Your task to perform on an android device: Search for seafood restaurants on Google Maps Image 0: 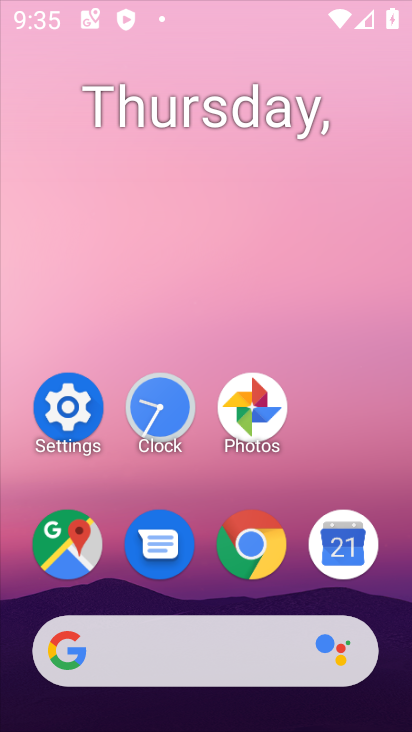
Step 0: click (61, 403)
Your task to perform on an android device: Search for seafood restaurants on Google Maps Image 1: 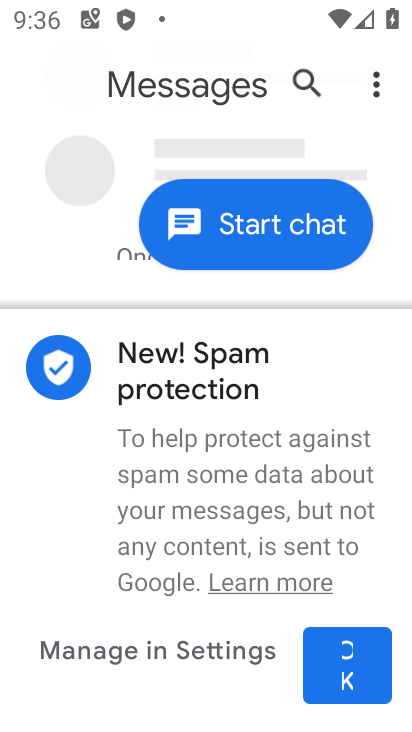
Step 1: press home button
Your task to perform on an android device: Search for seafood restaurants on Google Maps Image 2: 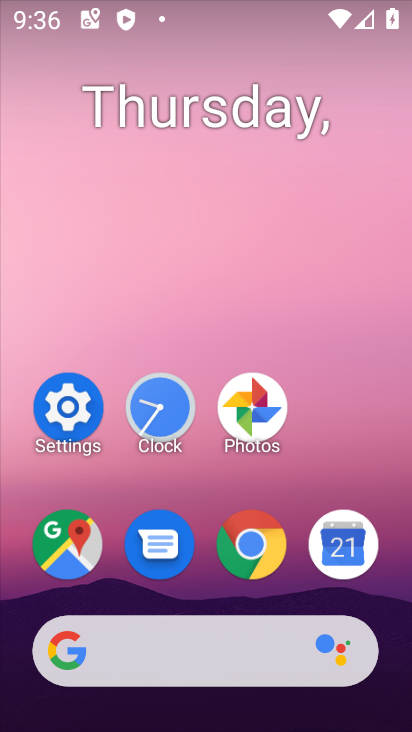
Step 2: click (60, 543)
Your task to perform on an android device: Search for seafood restaurants on Google Maps Image 3: 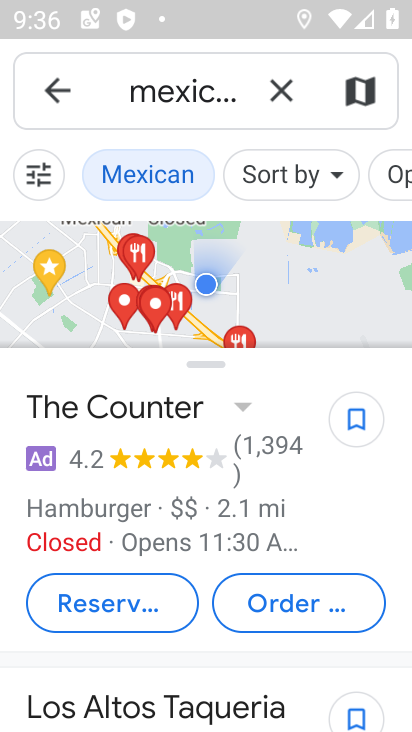
Step 3: click (281, 95)
Your task to perform on an android device: Search for seafood restaurants on Google Maps Image 4: 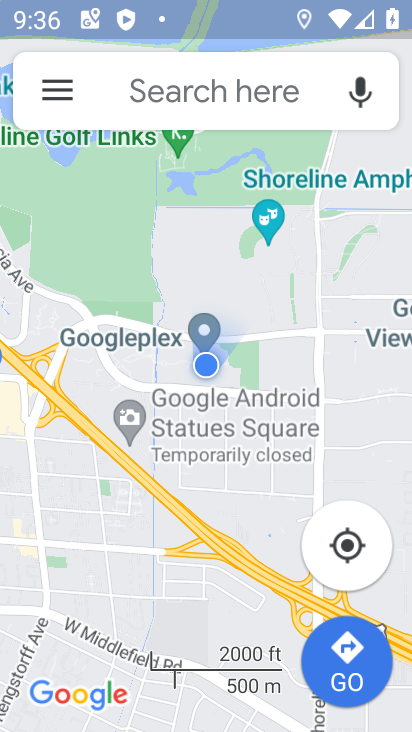
Step 4: click (190, 86)
Your task to perform on an android device: Search for seafood restaurants on Google Maps Image 5: 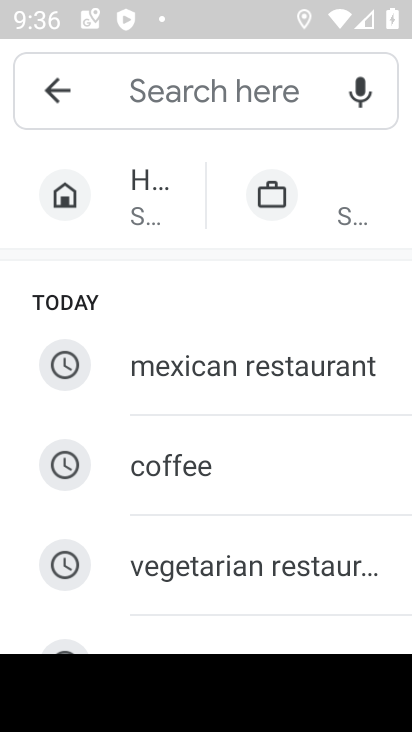
Step 5: type "seafood restaurants "
Your task to perform on an android device: Search for seafood restaurants on Google Maps Image 6: 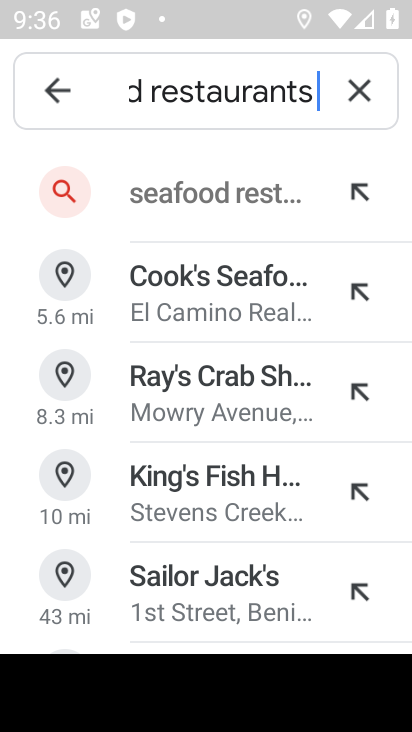
Step 6: click (220, 186)
Your task to perform on an android device: Search for seafood restaurants on Google Maps Image 7: 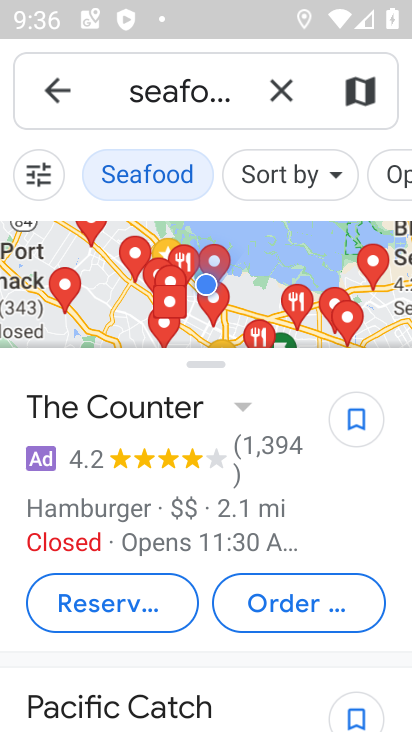
Step 7: task complete